Your task to perform on an android device: show emergency info Image 0: 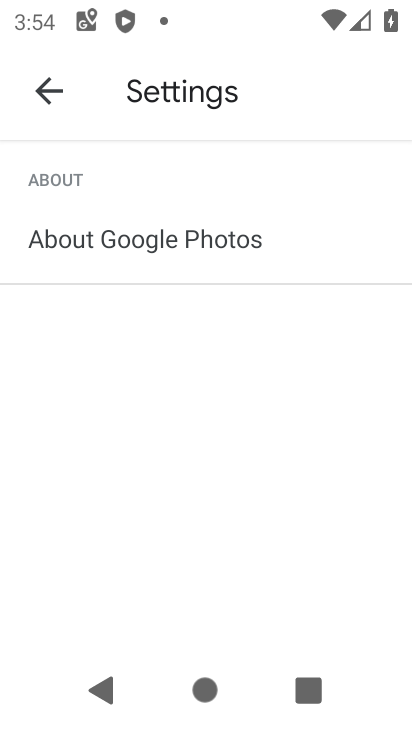
Step 0: task complete